Your task to perform on an android device: toggle notifications settings in the gmail app Image 0: 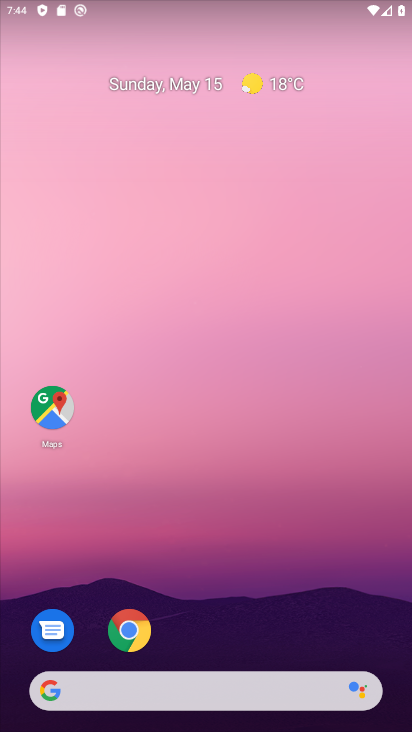
Step 0: drag from (239, 510) to (335, 13)
Your task to perform on an android device: toggle notifications settings in the gmail app Image 1: 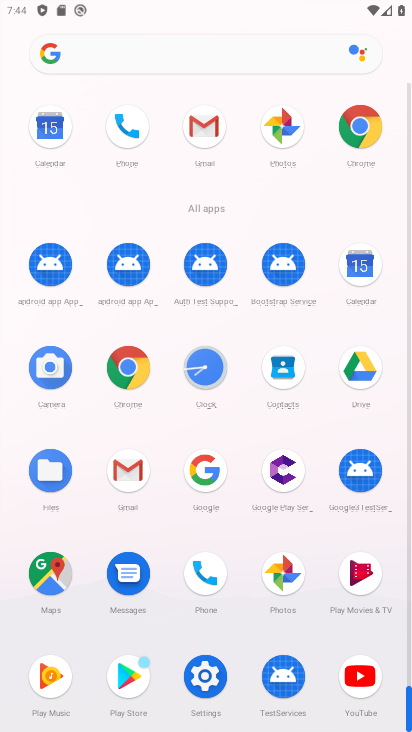
Step 1: click (120, 471)
Your task to perform on an android device: toggle notifications settings in the gmail app Image 2: 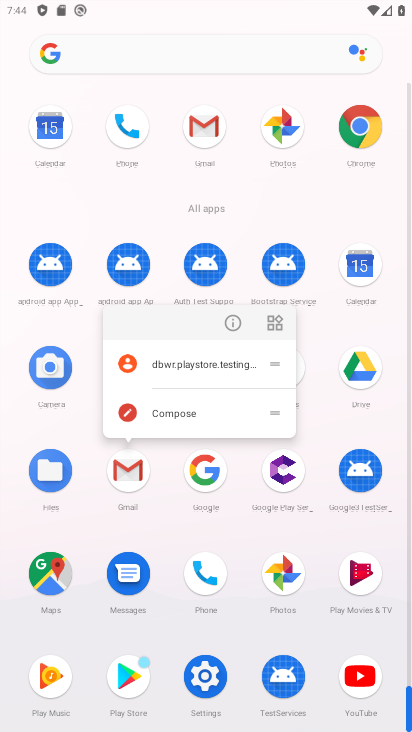
Step 2: click (153, 368)
Your task to perform on an android device: toggle notifications settings in the gmail app Image 3: 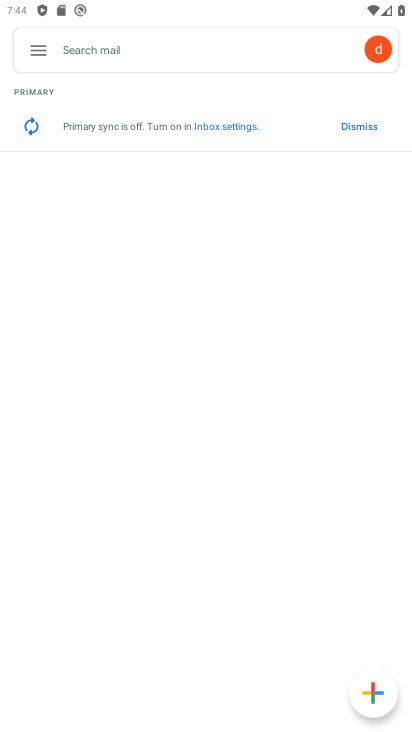
Step 3: click (37, 54)
Your task to perform on an android device: toggle notifications settings in the gmail app Image 4: 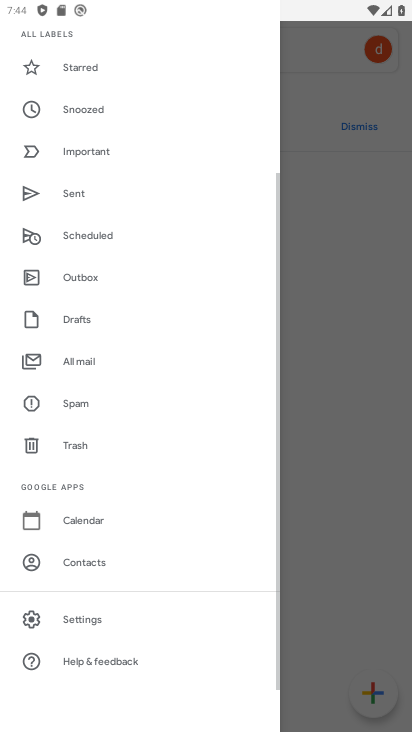
Step 4: click (115, 634)
Your task to perform on an android device: toggle notifications settings in the gmail app Image 5: 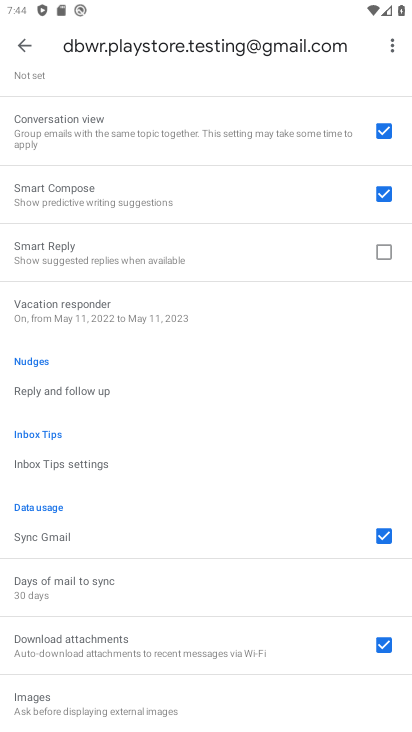
Step 5: drag from (209, 326) to (232, 728)
Your task to perform on an android device: toggle notifications settings in the gmail app Image 6: 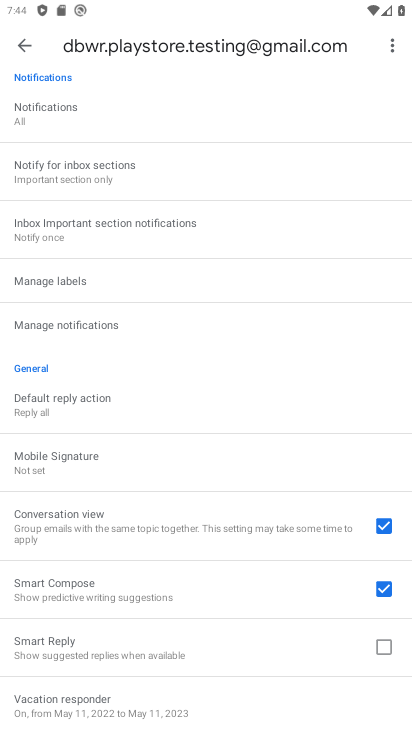
Step 6: click (89, 318)
Your task to perform on an android device: toggle notifications settings in the gmail app Image 7: 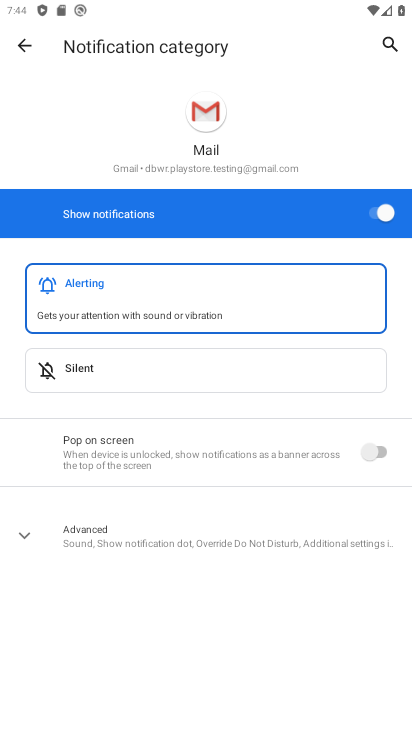
Step 7: click (380, 217)
Your task to perform on an android device: toggle notifications settings in the gmail app Image 8: 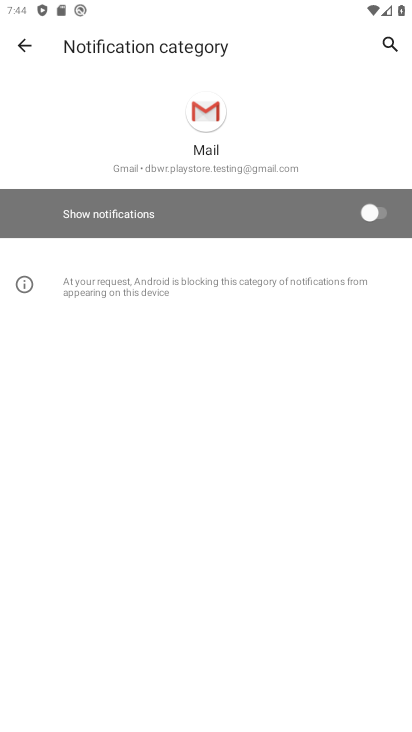
Step 8: task complete